Your task to perform on an android device: Is it going to rain this weekend? Image 0: 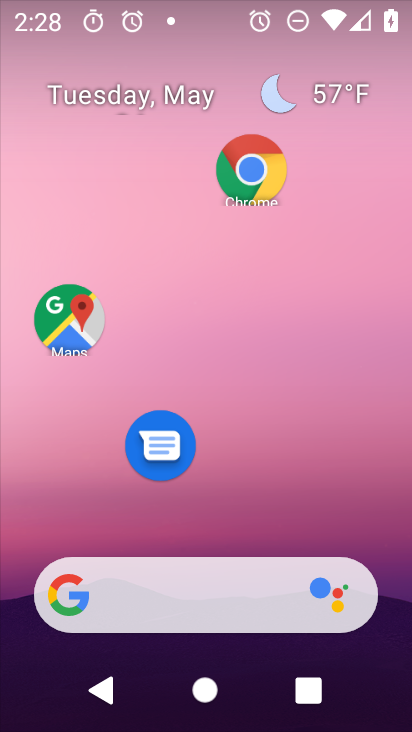
Step 0: drag from (240, 725) to (229, 162)
Your task to perform on an android device: Is it going to rain this weekend? Image 1: 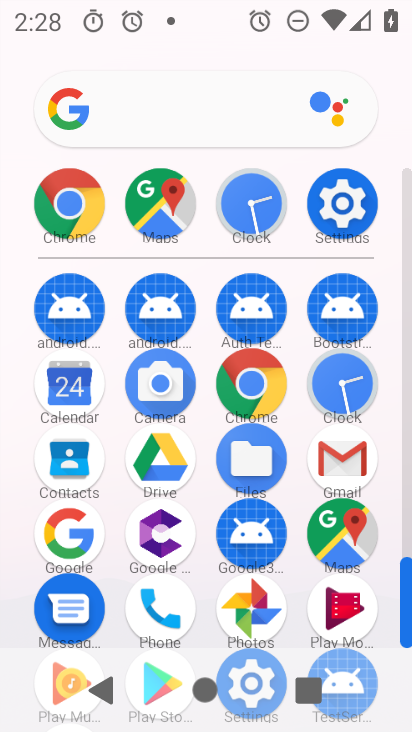
Step 1: click (70, 534)
Your task to perform on an android device: Is it going to rain this weekend? Image 2: 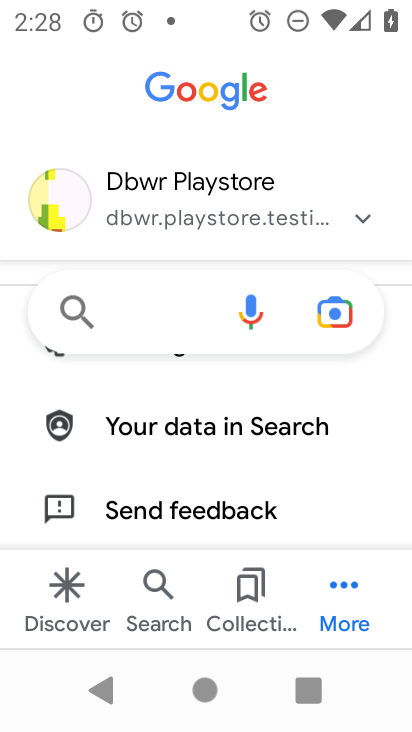
Step 2: click (195, 319)
Your task to perform on an android device: Is it going to rain this weekend? Image 3: 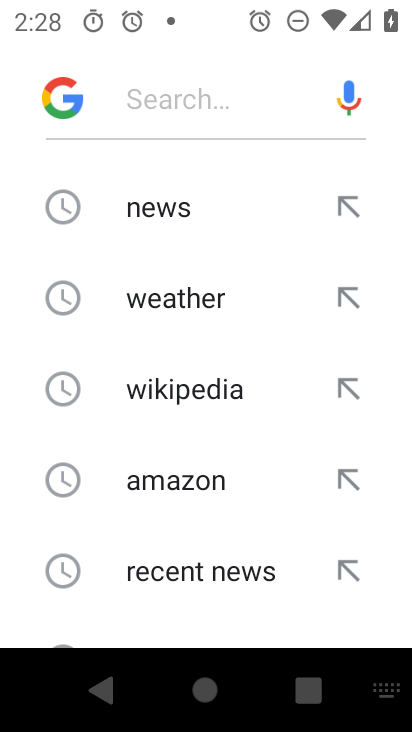
Step 3: click (154, 294)
Your task to perform on an android device: Is it going to rain this weekend? Image 4: 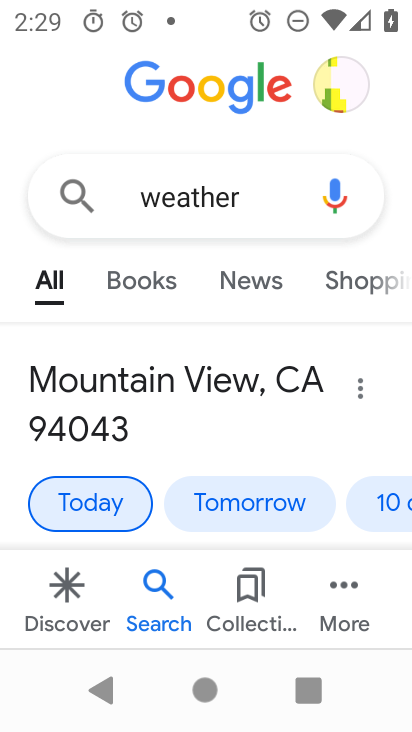
Step 4: click (124, 504)
Your task to perform on an android device: Is it going to rain this weekend? Image 5: 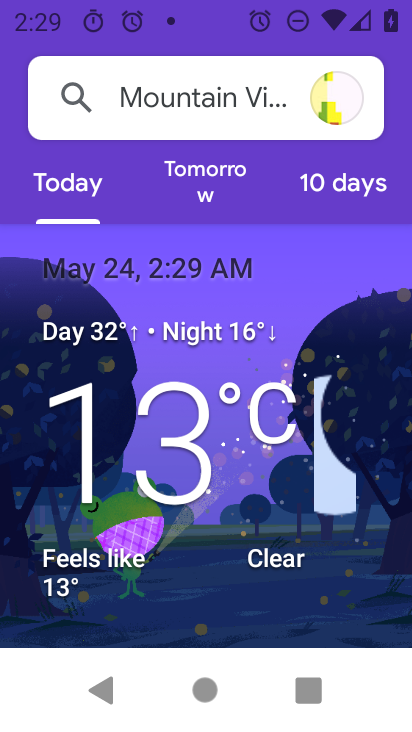
Step 5: click (335, 184)
Your task to perform on an android device: Is it going to rain this weekend? Image 6: 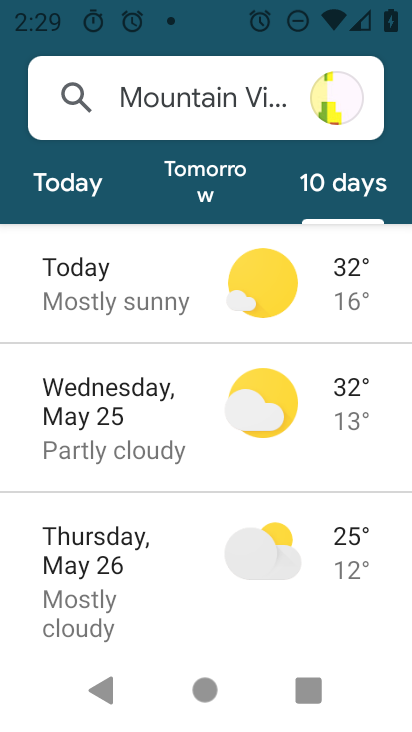
Step 6: drag from (120, 605) to (126, 304)
Your task to perform on an android device: Is it going to rain this weekend? Image 7: 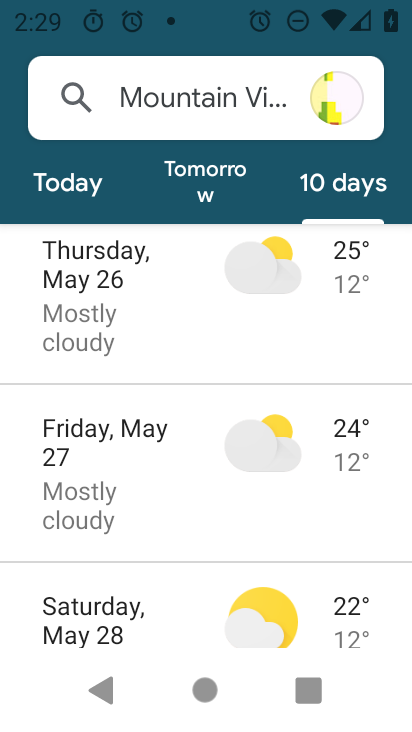
Step 7: drag from (149, 615) to (152, 321)
Your task to perform on an android device: Is it going to rain this weekend? Image 8: 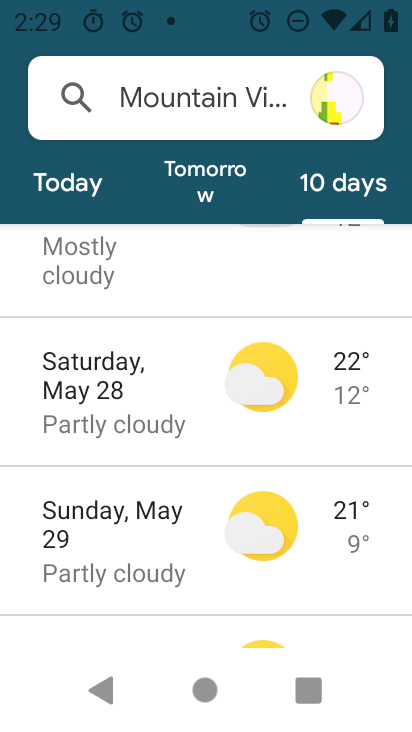
Step 8: click (118, 413)
Your task to perform on an android device: Is it going to rain this weekend? Image 9: 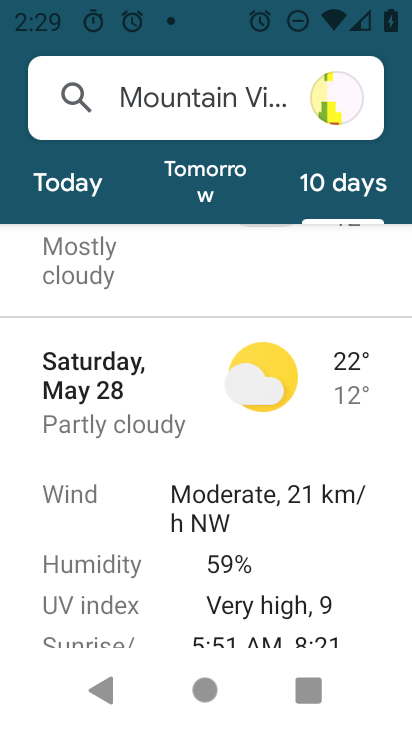
Step 9: task complete